Your task to perform on an android device: open app "Speedtest by Ookla" (install if not already installed) and go to login screen Image 0: 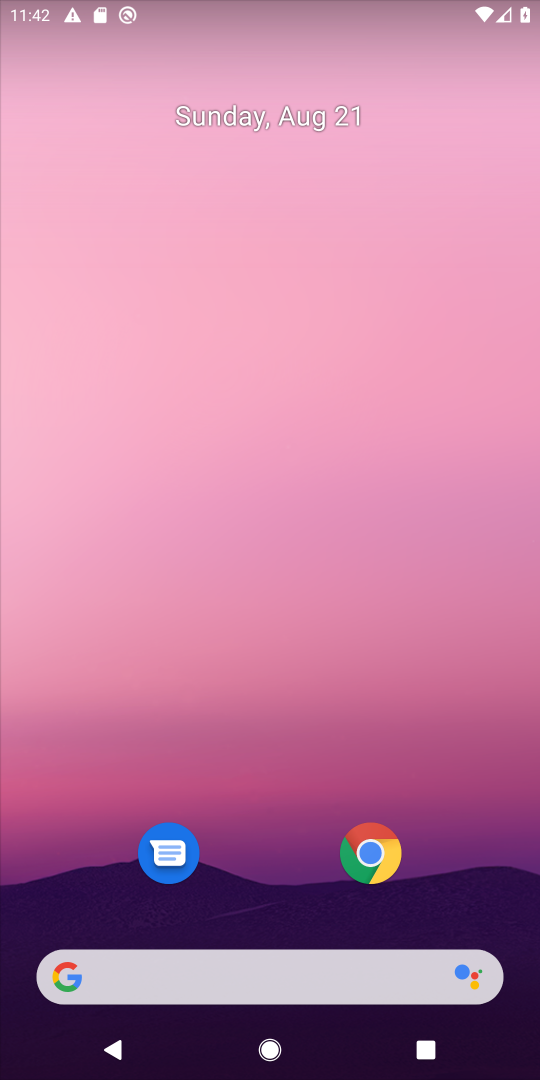
Step 0: drag from (208, 901) to (238, 244)
Your task to perform on an android device: open app "Speedtest by Ookla" (install if not already installed) and go to login screen Image 1: 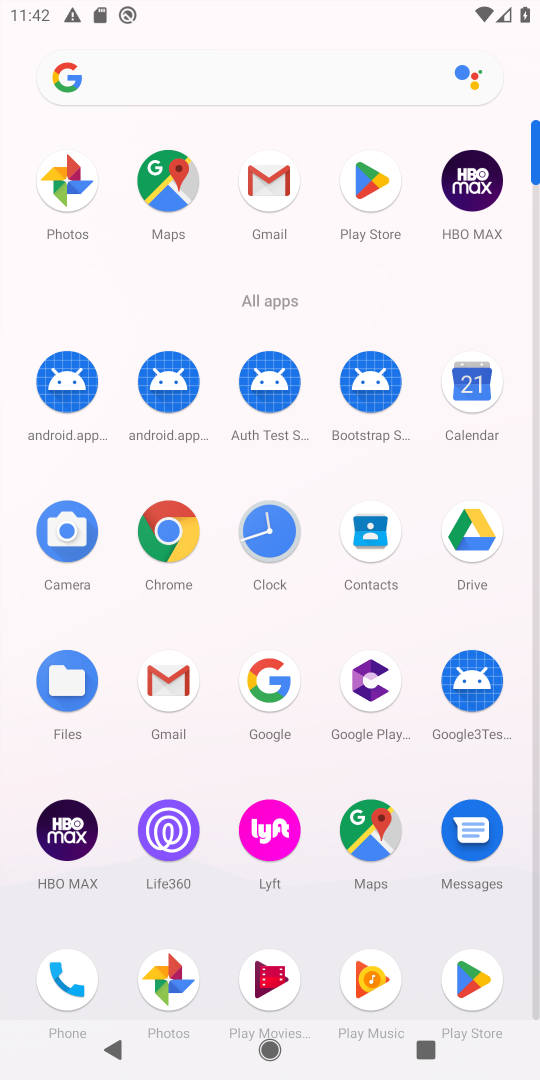
Step 1: click (359, 176)
Your task to perform on an android device: open app "Speedtest by Ookla" (install if not already installed) and go to login screen Image 2: 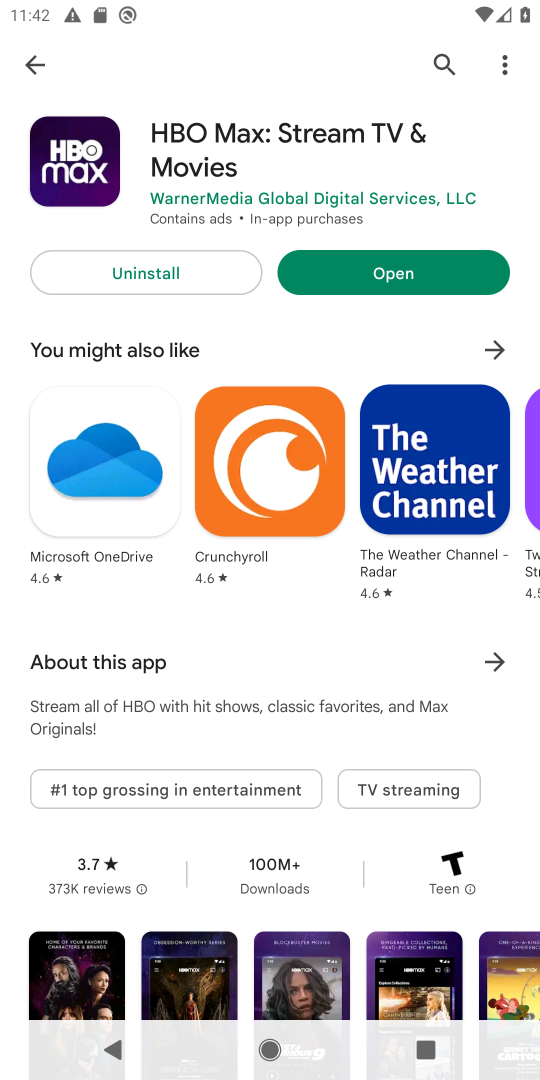
Step 2: click (37, 67)
Your task to perform on an android device: open app "Speedtest by Ookla" (install if not already installed) and go to login screen Image 3: 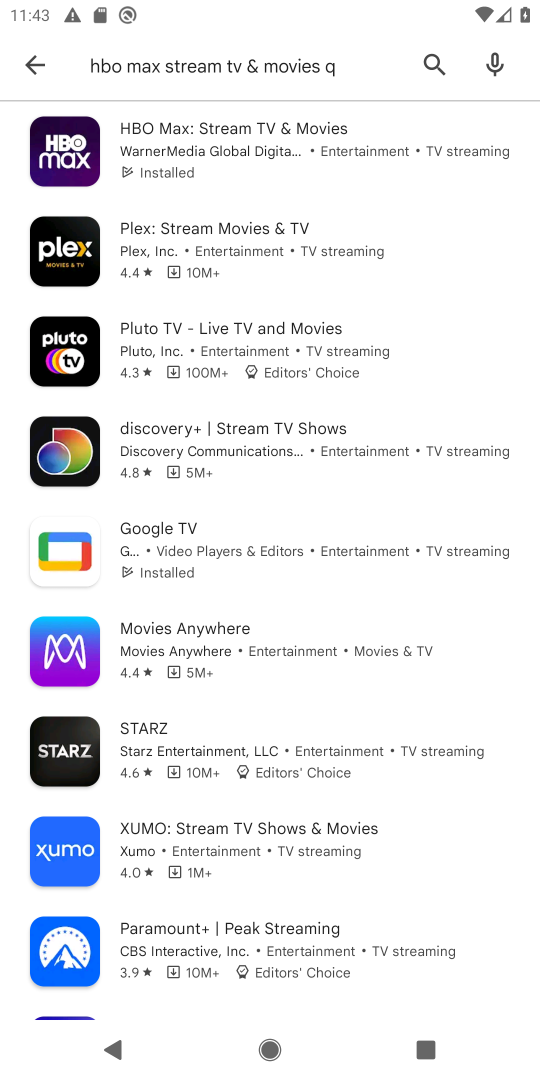
Step 3: click (60, 53)
Your task to perform on an android device: open app "Speedtest by Ookla" (install if not already installed) and go to login screen Image 4: 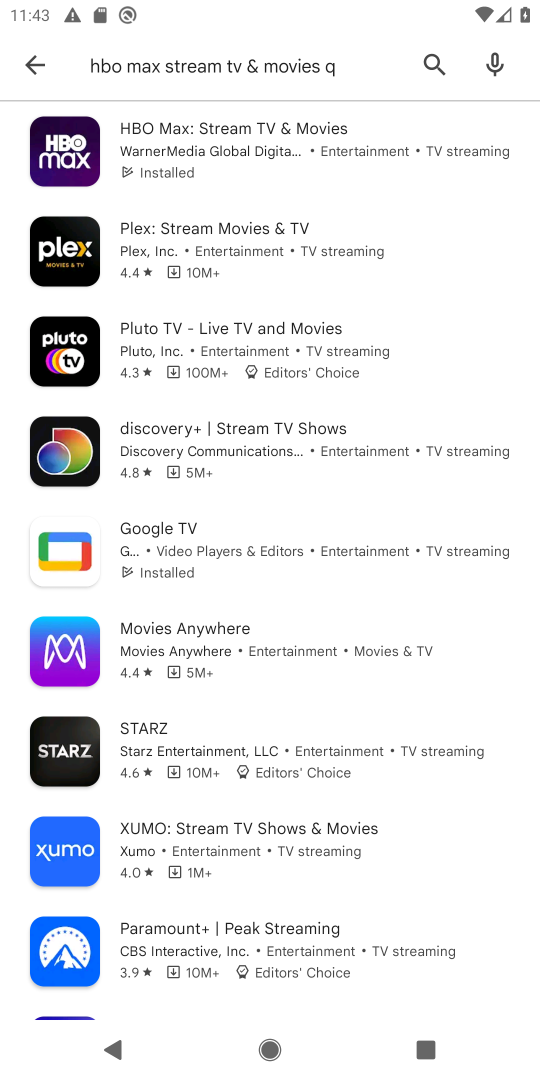
Step 4: click (441, 48)
Your task to perform on an android device: open app "Speedtest by Ookla" (install if not already installed) and go to login screen Image 5: 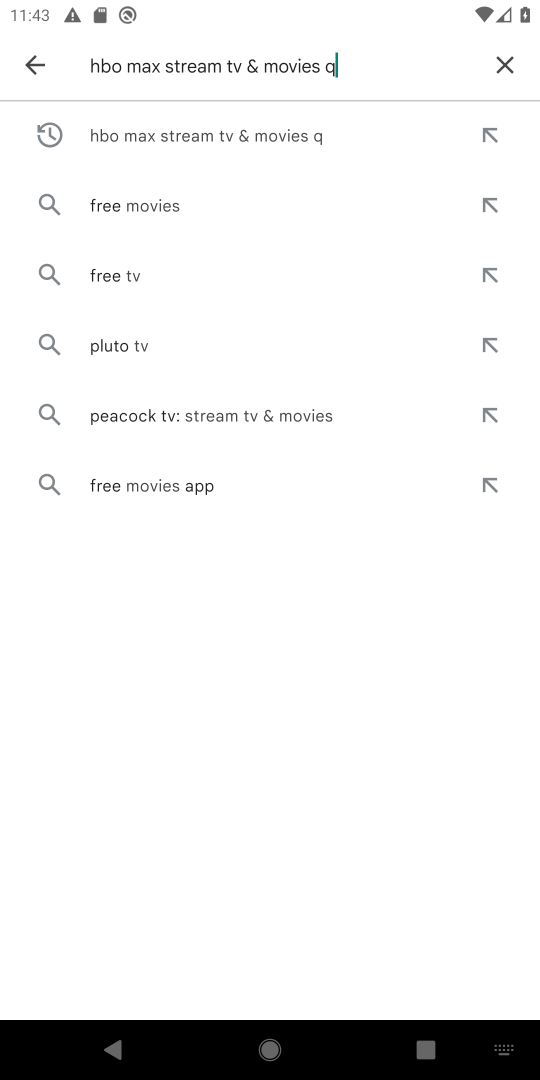
Step 5: click (525, 53)
Your task to perform on an android device: open app "Speedtest by Ookla" (install if not already installed) and go to login screen Image 6: 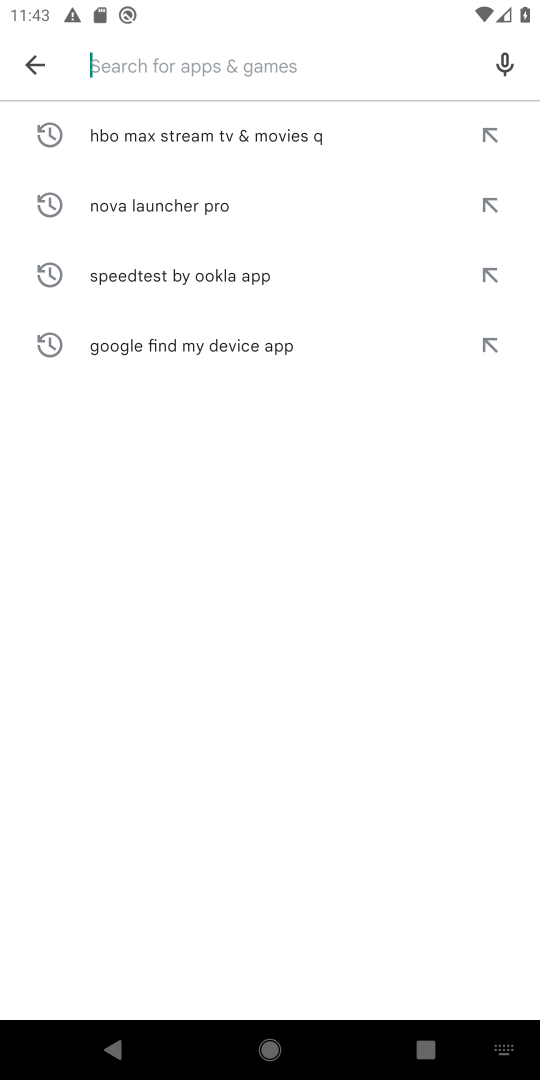
Step 6: click (279, 51)
Your task to perform on an android device: open app "Speedtest by Ookla" (install if not already installed) and go to login screen Image 7: 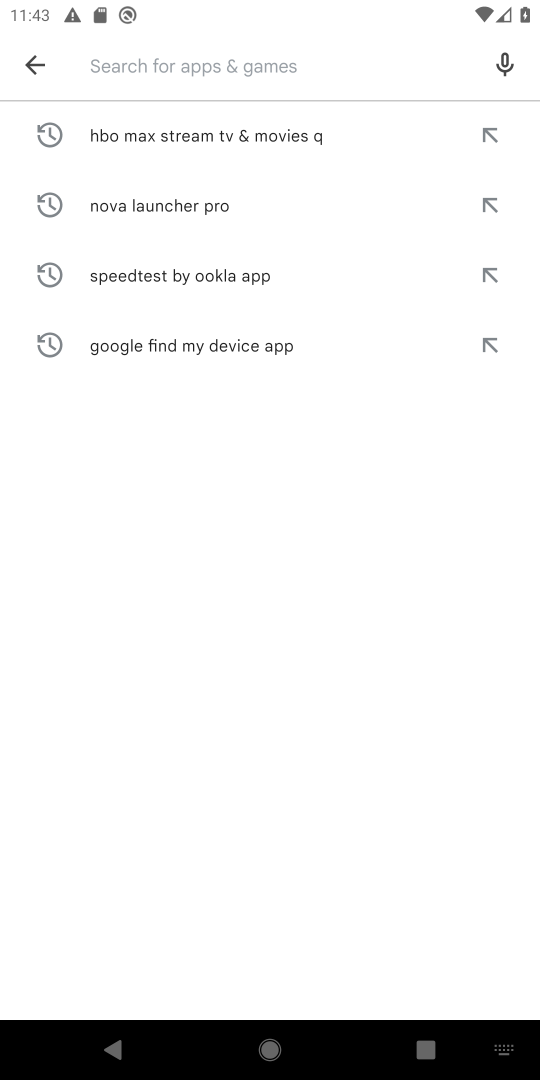
Step 7: type "Speedtest by Ookla "
Your task to perform on an android device: open app "Speedtest by Ookla" (install if not already installed) and go to login screen Image 8: 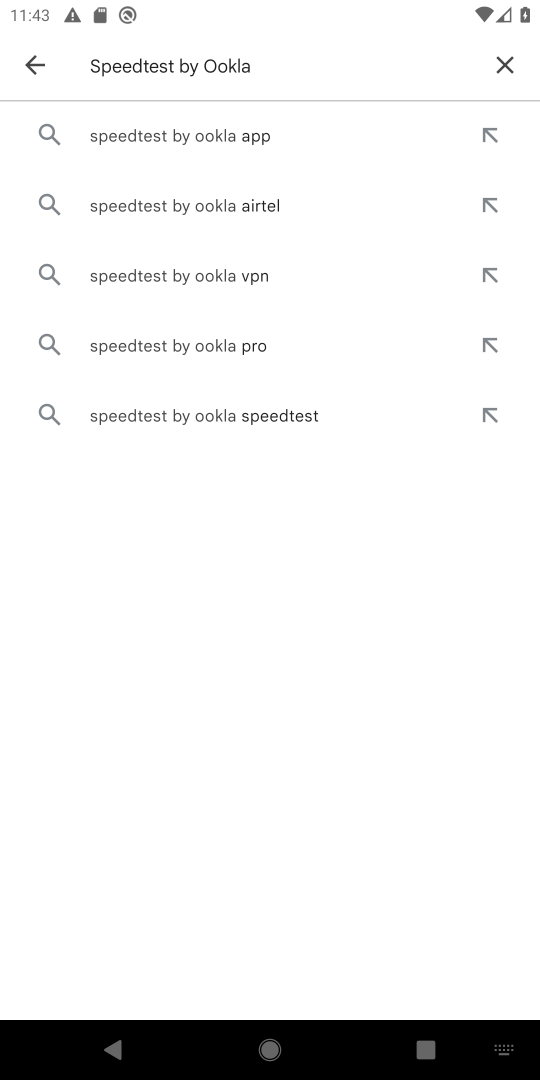
Step 8: click (149, 120)
Your task to perform on an android device: open app "Speedtest by Ookla" (install if not already installed) and go to login screen Image 9: 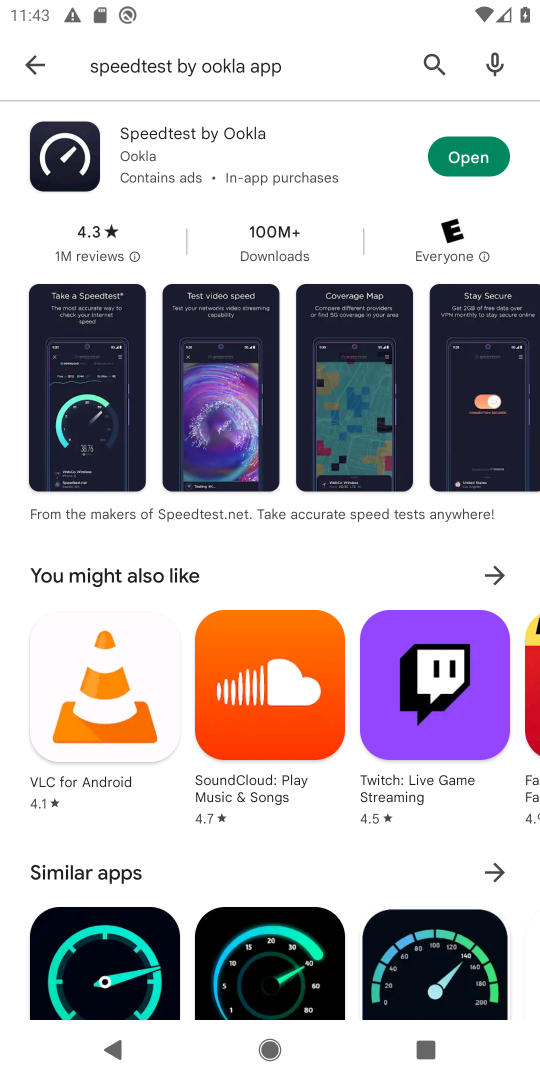
Step 9: click (466, 155)
Your task to perform on an android device: open app "Speedtest by Ookla" (install if not already installed) and go to login screen Image 10: 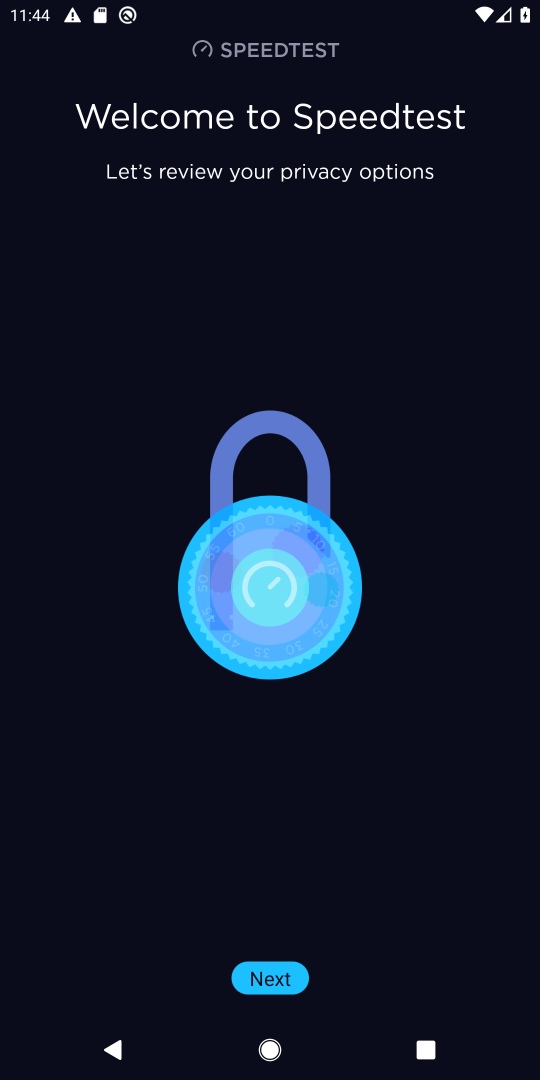
Step 10: task complete